Your task to perform on an android device: Open location settings Image 0: 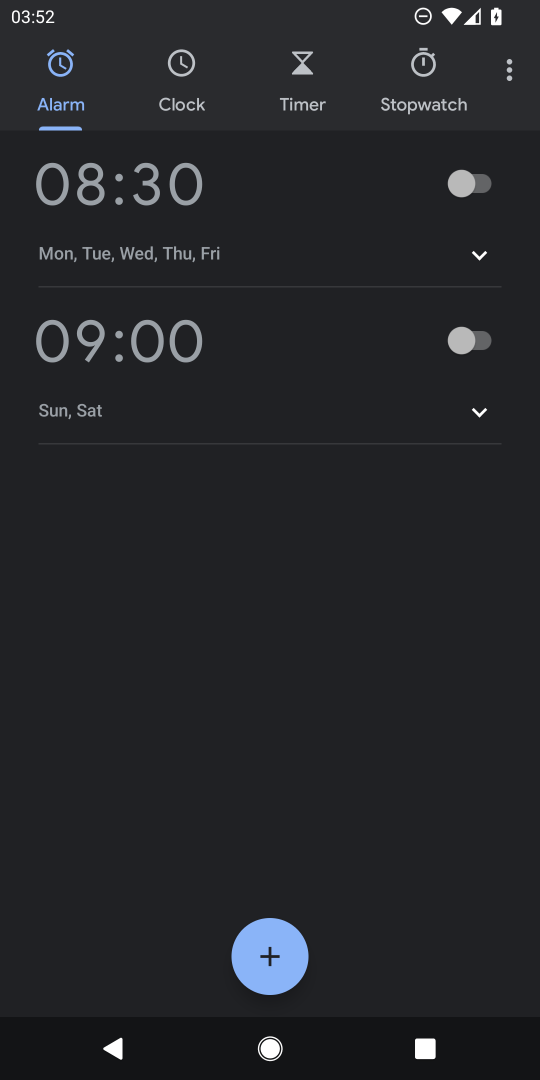
Step 0: press home button
Your task to perform on an android device: Open location settings Image 1: 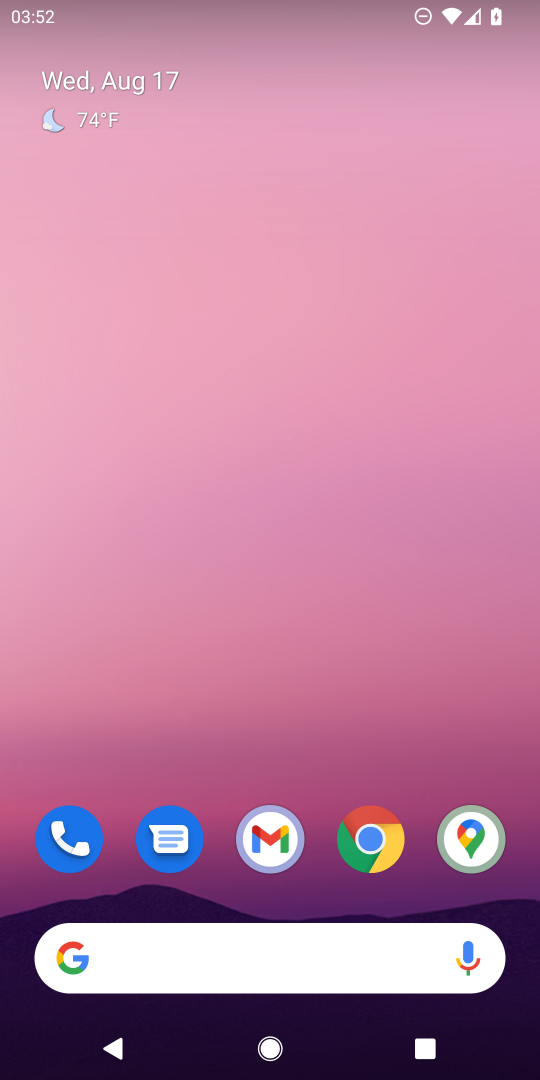
Step 1: drag from (294, 677) to (246, 140)
Your task to perform on an android device: Open location settings Image 2: 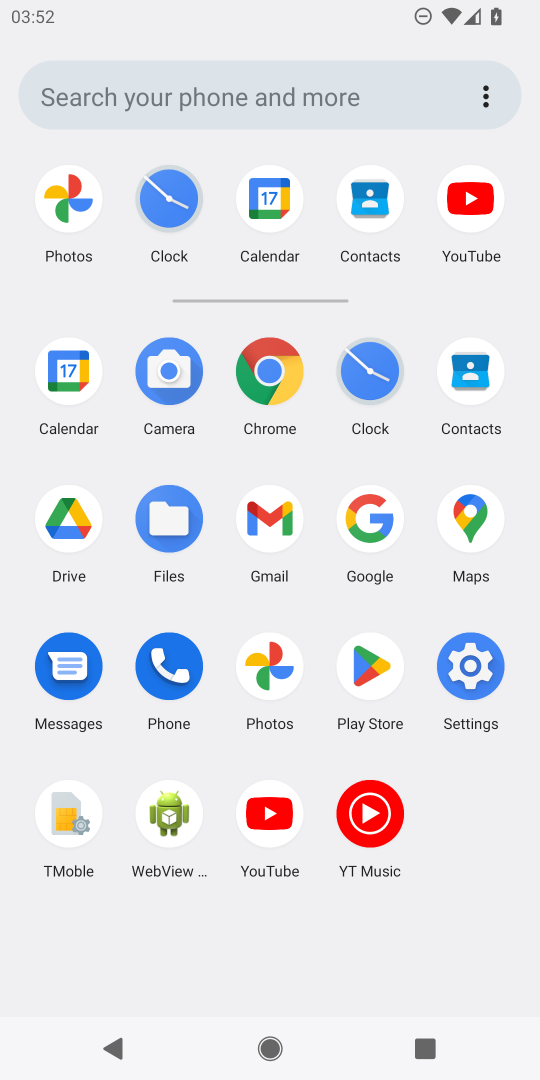
Step 2: click (476, 674)
Your task to perform on an android device: Open location settings Image 3: 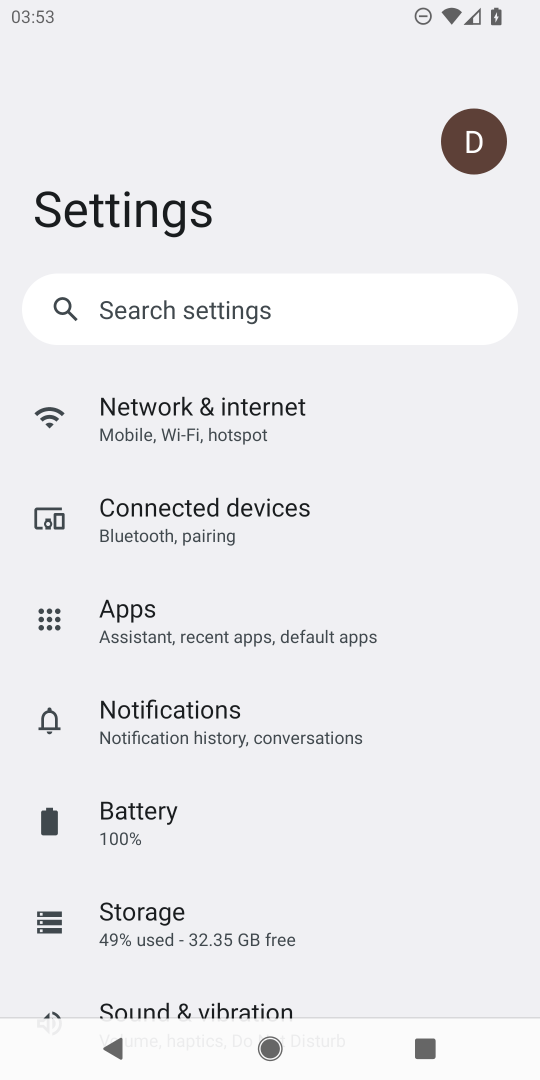
Step 3: drag from (115, 924) to (119, 413)
Your task to perform on an android device: Open location settings Image 4: 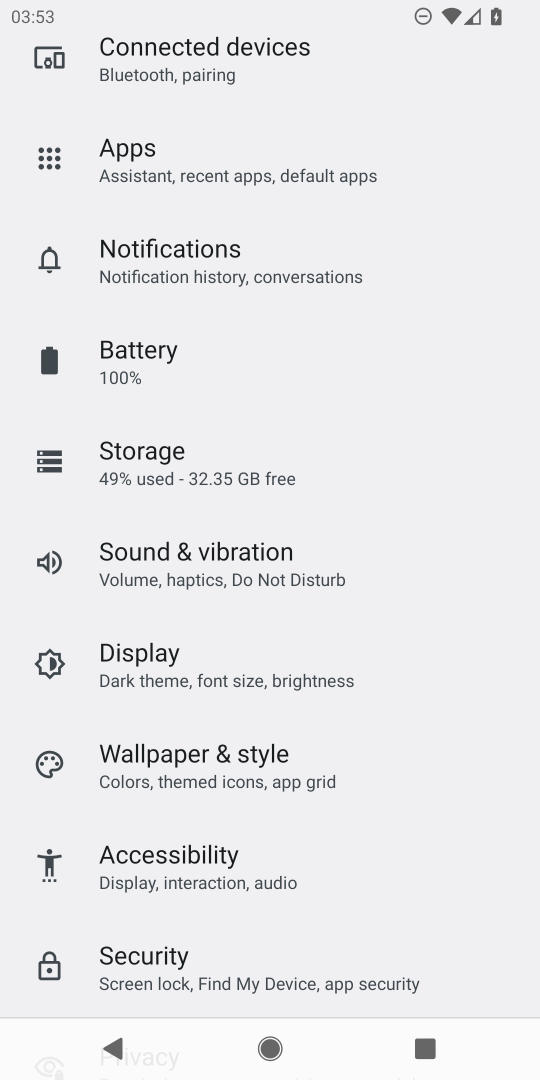
Step 4: drag from (176, 904) to (198, 482)
Your task to perform on an android device: Open location settings Image 5: 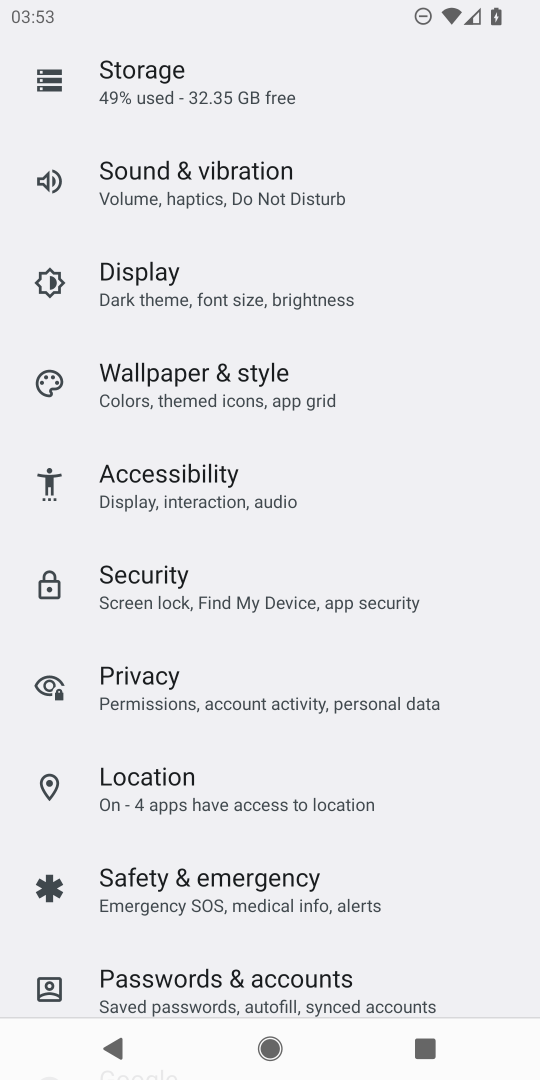
Step 5: click (151, 791)
Your task to perform on an android device: Open location settings Image 6: 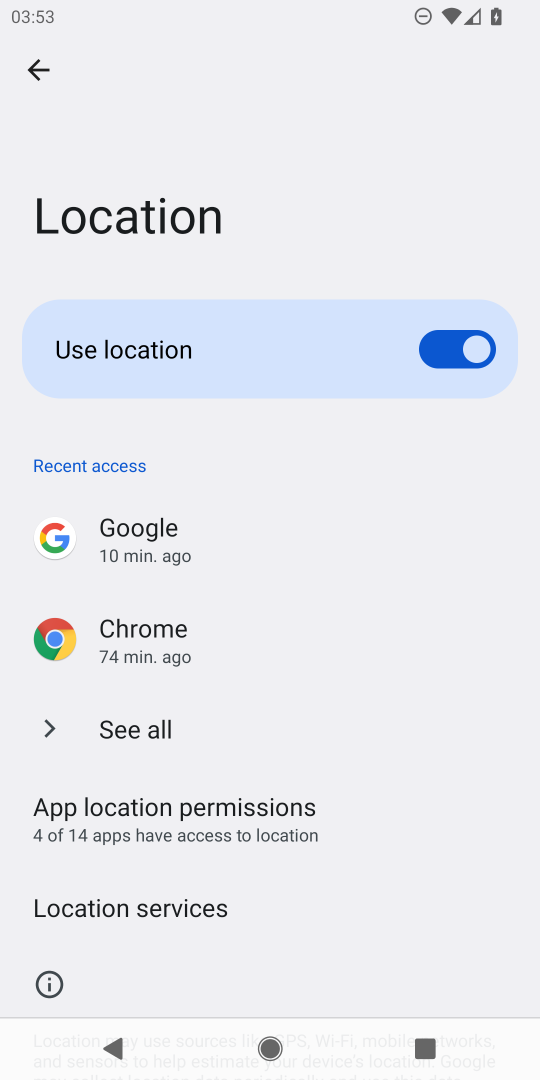
Step 6: task complete